Your task to perform on an android device: Open my contact list Image 0: 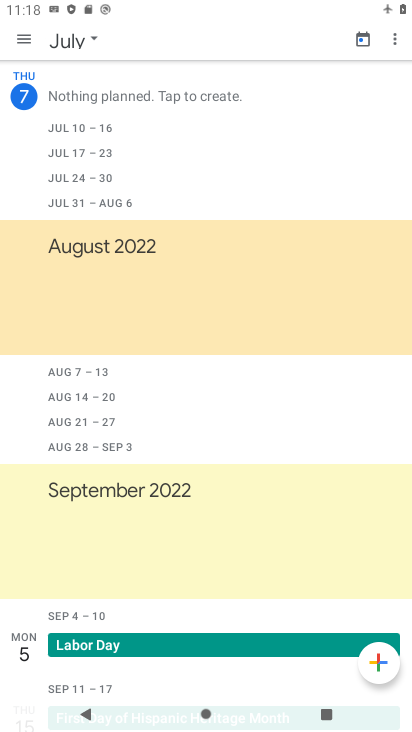
Step 0: press home button
Your task to perform on an android device: Open my contact list Image 1: 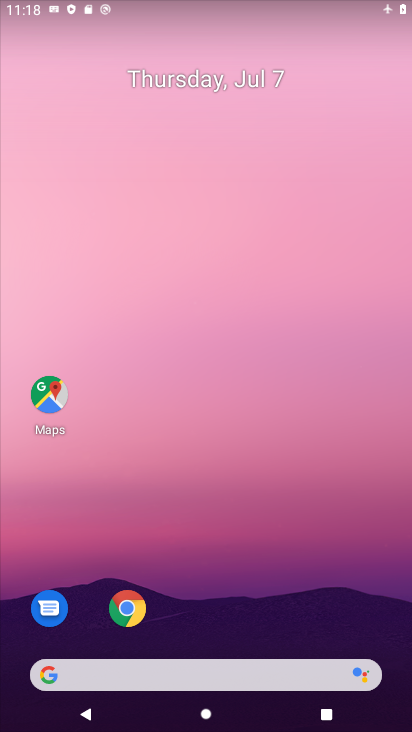
Step 1: drag from (259, 510) to (196, 12)
Your task to perform on an android device: Open my contact list Image 2: 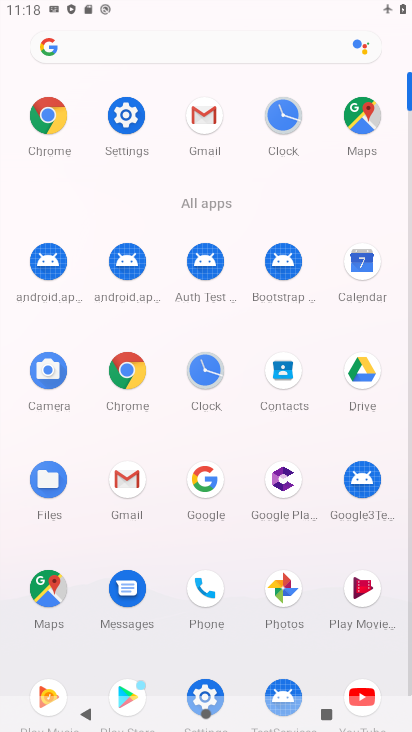
Step 2: click (283, 376)
Your task to perform on an android device: Open my contact list Image 3: 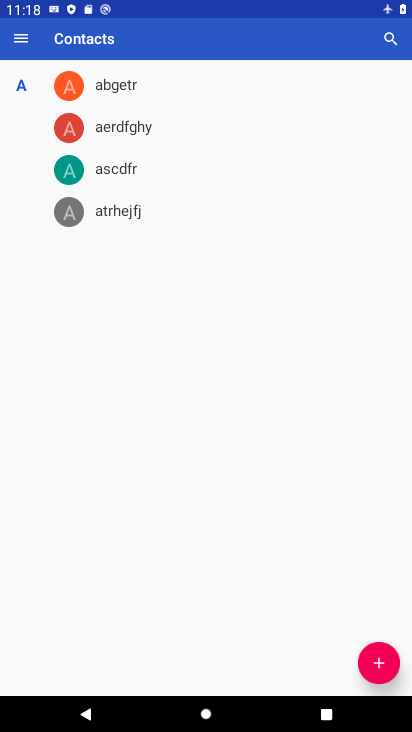
Step 3: task complete